Your task to perform on an android device: open app "Fetch Rewards" (install if not already installed), go to login, and select forgot password Image 0: 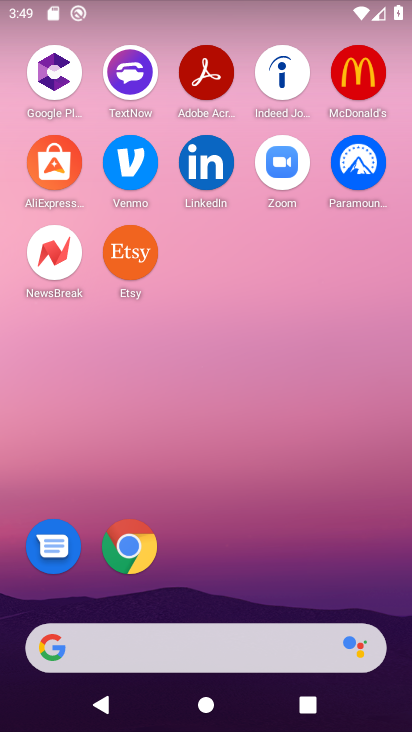
Step 0: drag from (400, 643) to (341, 141)
Your task to perform on an android device: open app "Fetch Rewards" (install if not already installed), go to login, and select forgot password Image 1: 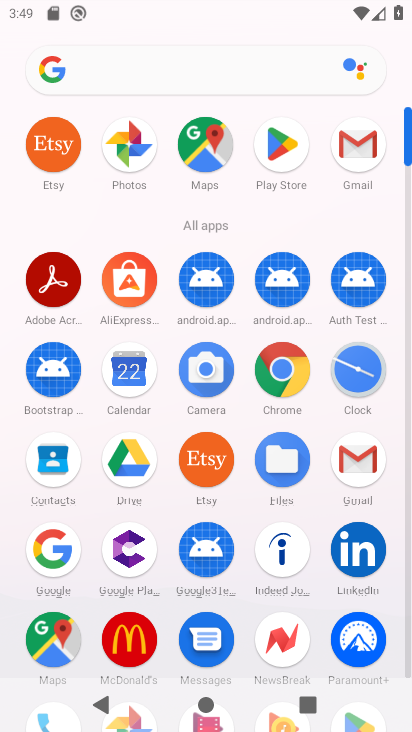
Step 1: drag from (243, 617) to (233, 332)
Your task to perform on an android device: open app "Fetch Rewards" (install if not already installed), go to login, and select forgot password Image 2: 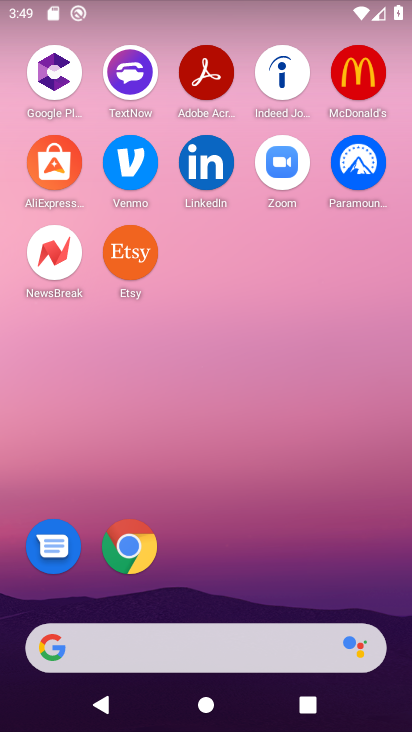
Step 2: drag from (251, 589) to (236, 123)
Your task to perform on an android device: open app "Fetch Rewards" (install if not already installed), go to login, and select forgot password Image 3: 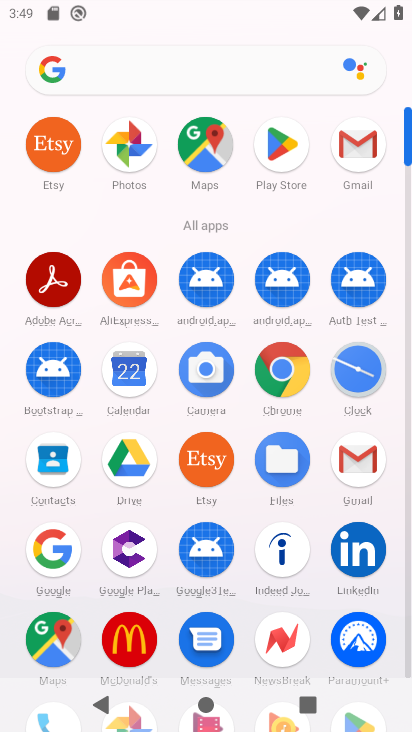
Step 3: drag from (168, 660) to (171, 392)
Your task to perform on an android device: open app "Fetch Rewards" (install if not already installed), go to login, and select forgot password Image 4: 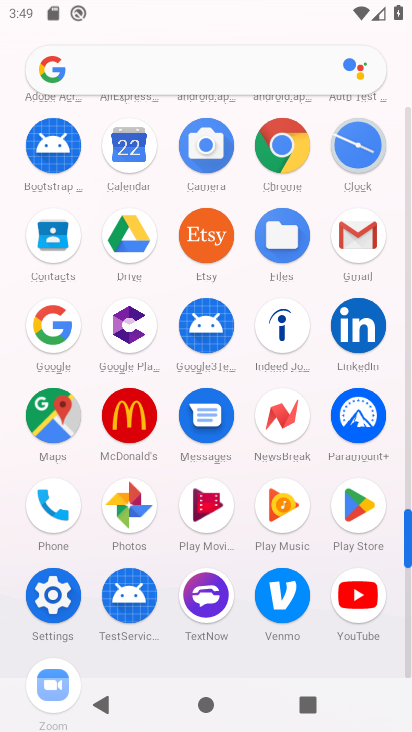
Step 4: click (359, 502)
Your task to perform on an android device: open app "Fetch Rewards" (install if not already installed), go to login, and select forgot password Image 5: 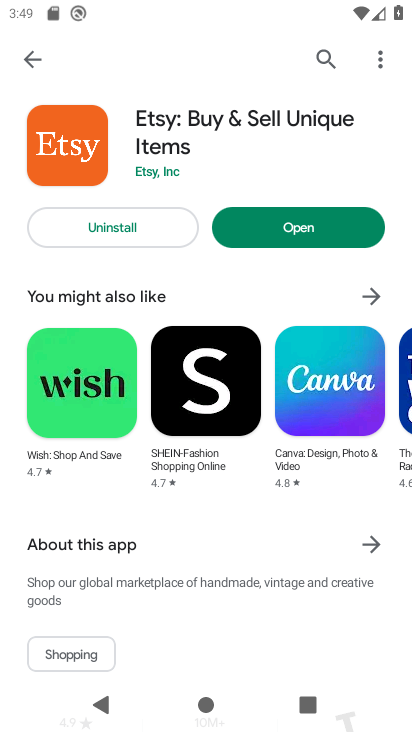
Step 5: click (318, 58)
Your task to perform on an android device: open app "Fetch Rewards" (install if not already installed), go to login, and select forgot password Image 6: 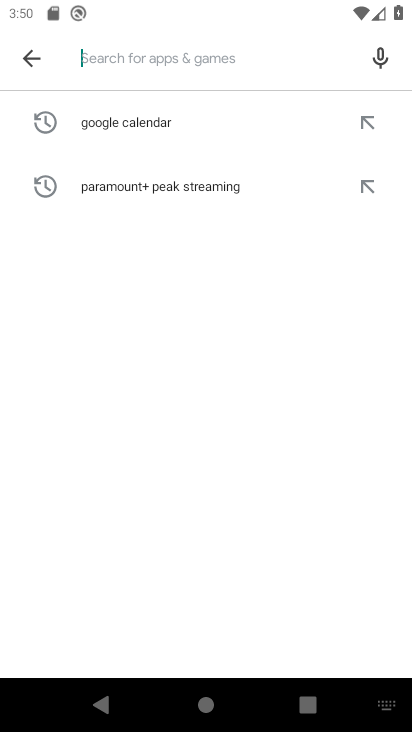
Step 6: type "Fetch Rewards"
Your task to perform on an android device: open app "Fetch Rewards" (install if not already installed), go to login, and select forgot password Image 7: 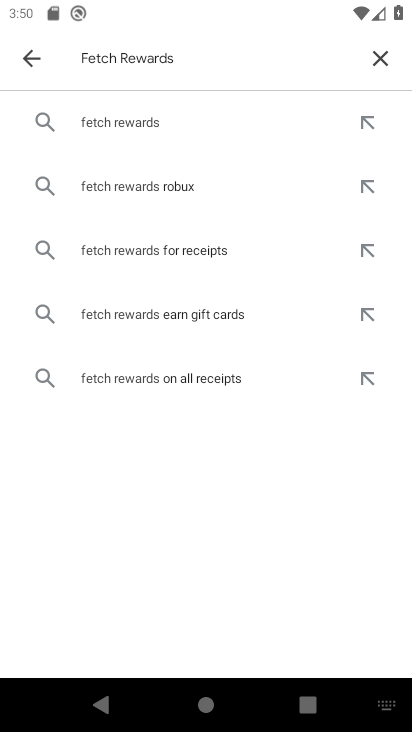
Step 7: click (116, 118)
Your task to perform on an android device: open app "Fetch Rewards" (install if not already installed), go to login, and select forgot password Image 8: 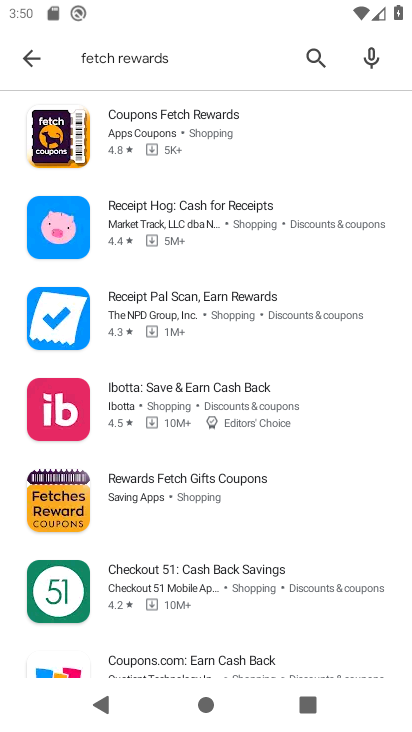
Step 8: task complete